Your task to perform on an android device: Open calendar and show me the third week of next month Image 0: 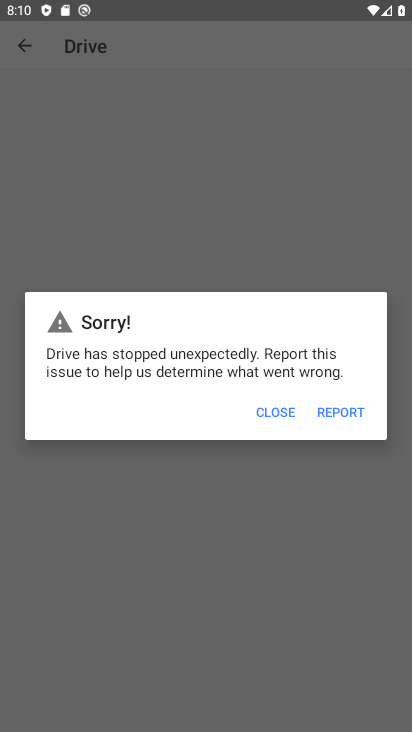
Step 0: press home button
Your task to perform on an android device: Open calendar and show me the third week of next month Image 1: 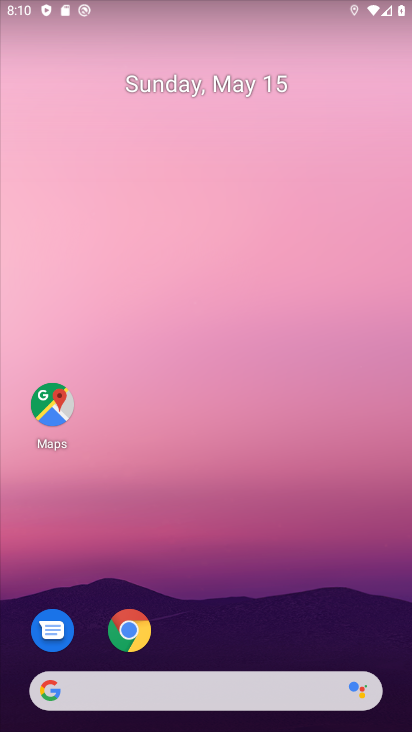
Step 1: drag from (191, 556) to (262, 76)
Your task to perform on an android device: Open calendar and show me the third week of next month Image 2: 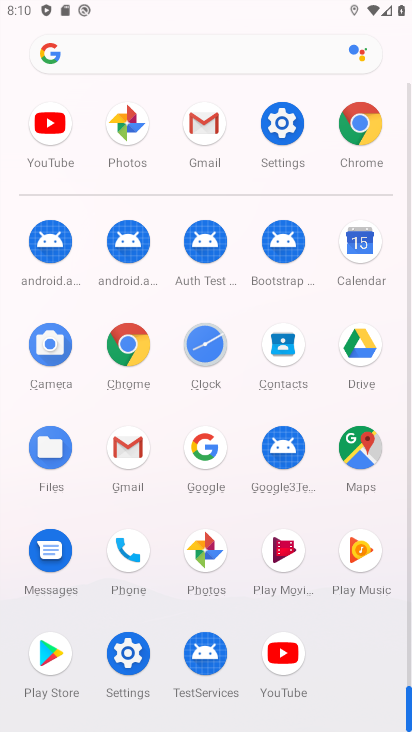
Step 2: click (368, 261)
Your task to perform on an android device: Open calendar and show me the third week of next month Image 3: 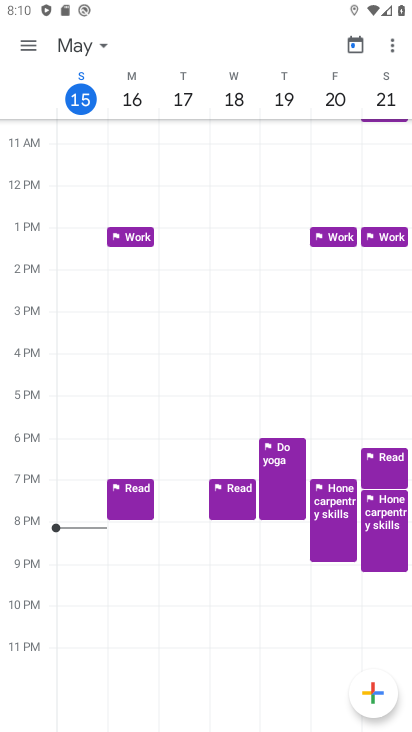
Step 3: task complete